Your task to perform on an android device: Add "razer blade" to the cart on costco.com, then select checkout. Image 0: 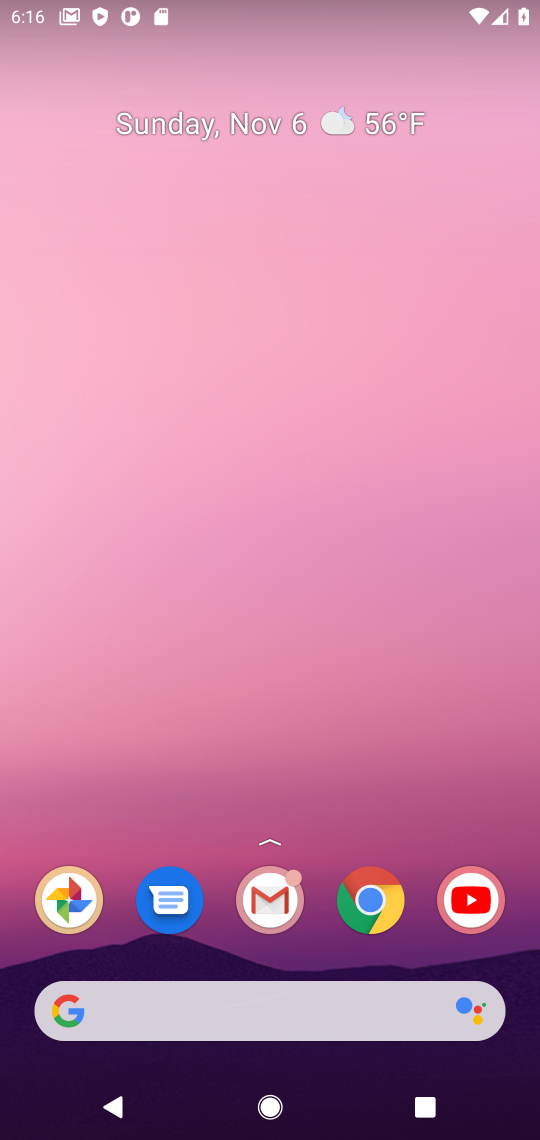
Step 0: drag from (317, 948) to (279, 52)
Your task to perform on an android device: Add "razer blade" to the cart on costco.com, then select checkout. Image 1: 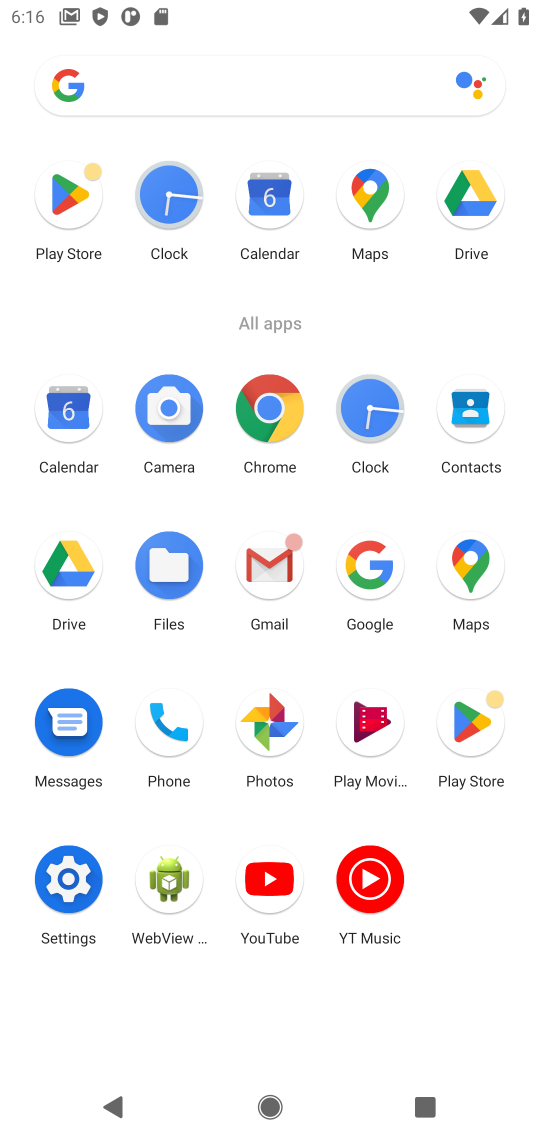
Step 1: click (269, 407)
Your task to perform on an android device: Add "razer blade" to the cart on costco.com, then select checkout. Image 2: 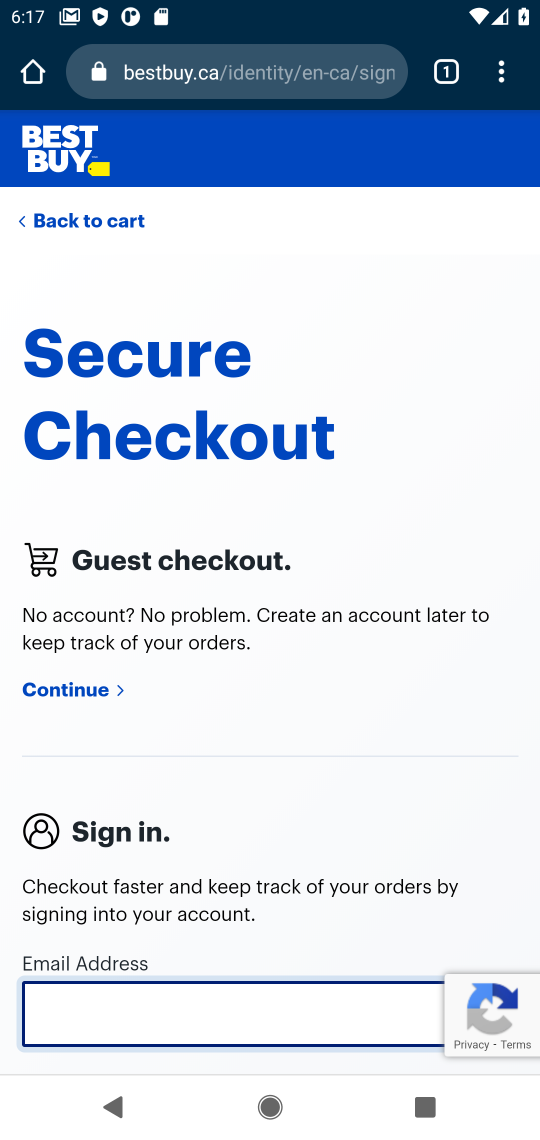
Step 2: click (325, 61)
Your task to perform on an android device: Add "razer blade" to the cart on costco.com, then select checkout. Image 3: 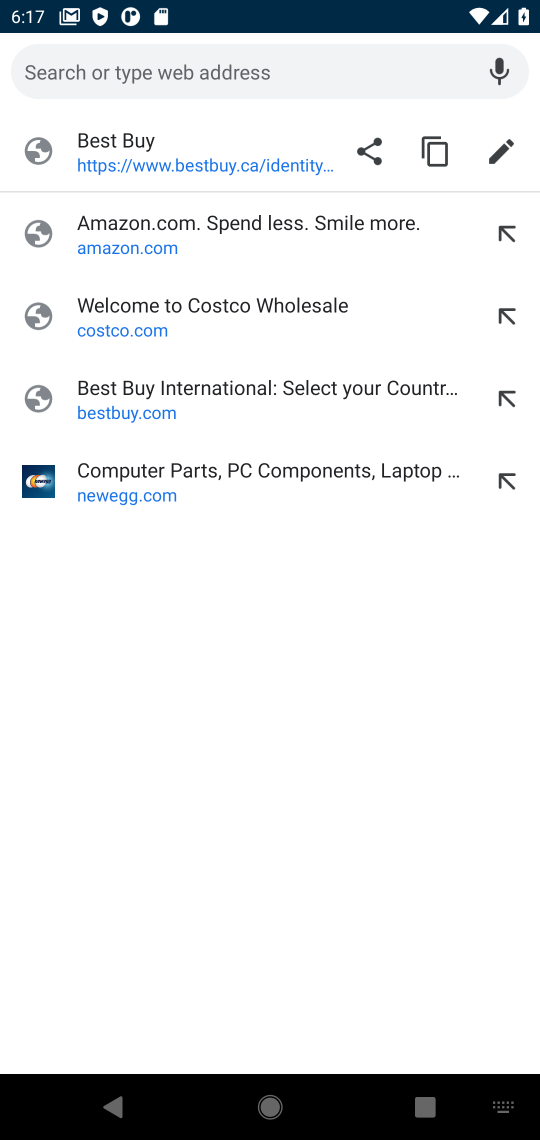
Step 3: type "costco.com"
Your task to perform on an android device: Add "razer blade" to the cart on costco.com, then select checkout. Image 4: 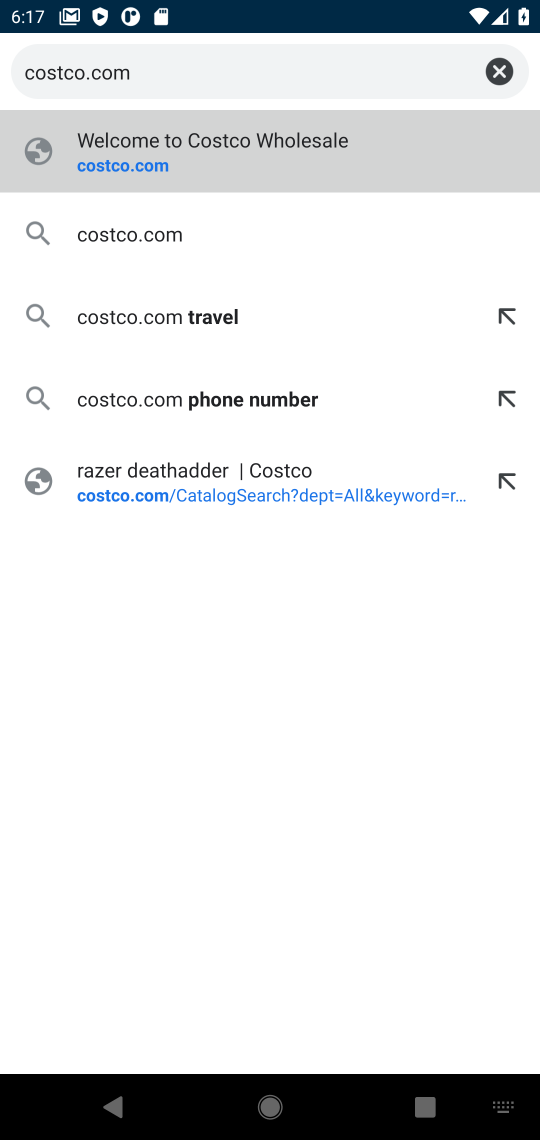
Step 4: press enter
Your task to perform on an android device: Add "razer blade" to the cart on costco.com, then select checkout. Image 5: 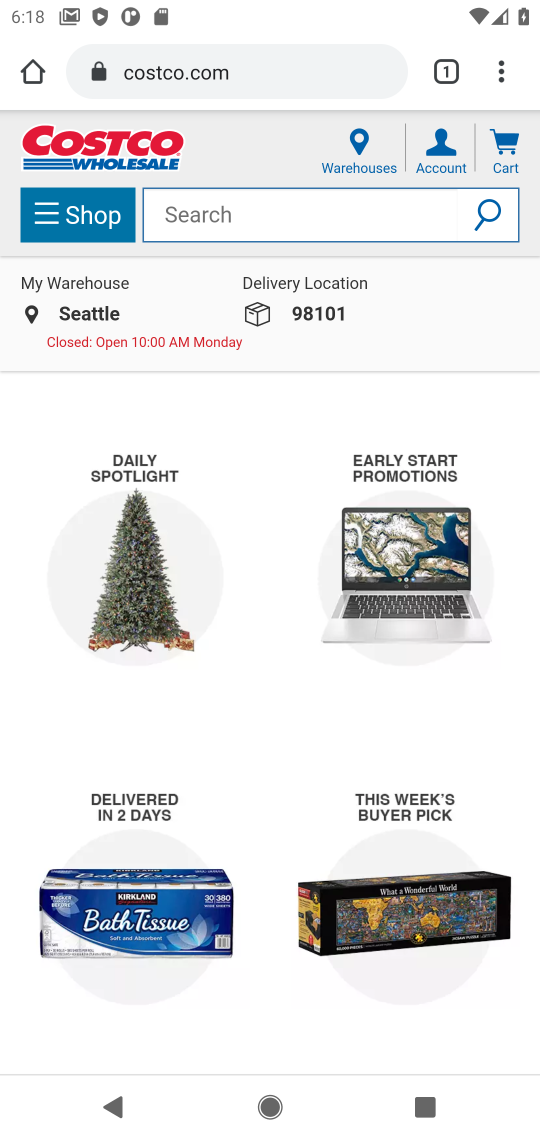
Step 5: click (321, 219)
Your task to perform on an android device: Add "razer blade" to the cart on costco.com, then select checkout. Image 6: 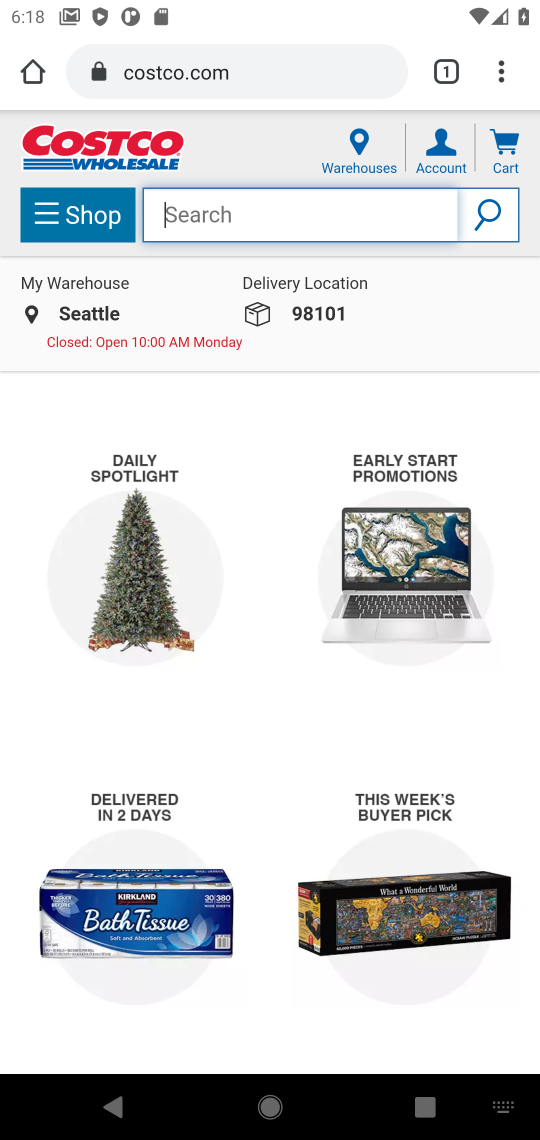
Step 6: type "razer blade"
Your task to perform on an android device: Add "razer blade" to the cart on costco.com, then select checkout. Image 7: 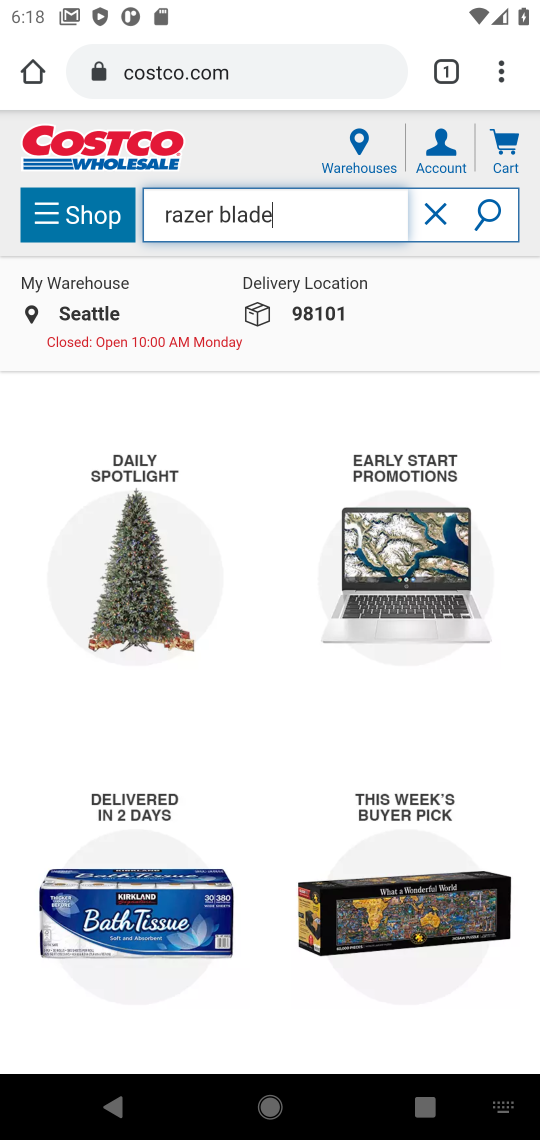
Step 7: press enter
Your task to perform on an android device: Add "razer blade" to the cart on costco.com, then select checkout. Image 8: 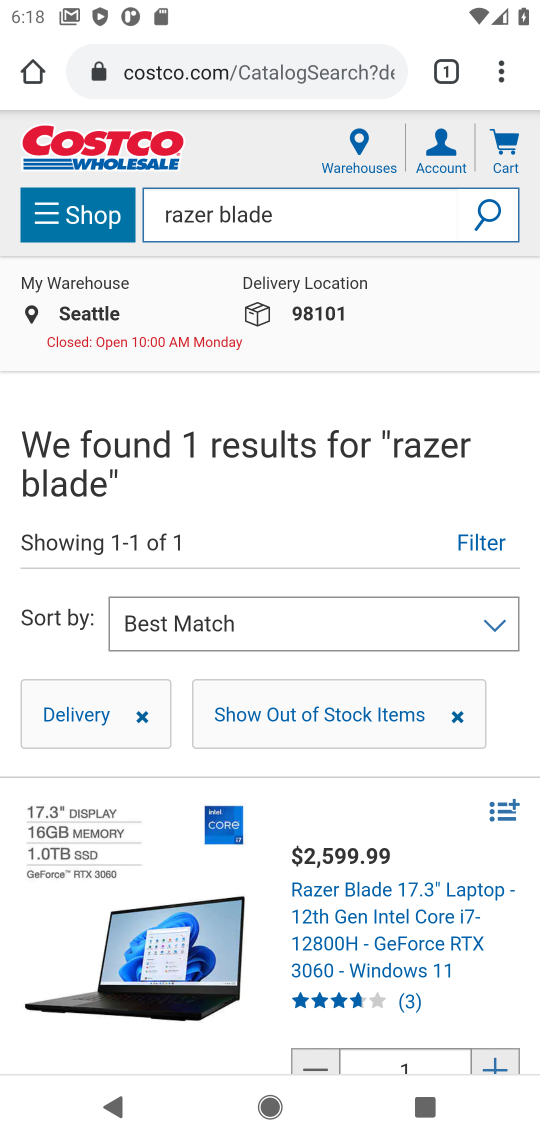
Step 8: drag from (342, 825) to (363, 346)
Your task to perform on an android device: Add "razer blade" to the cart on costco.com, then select checkout. Image 9: 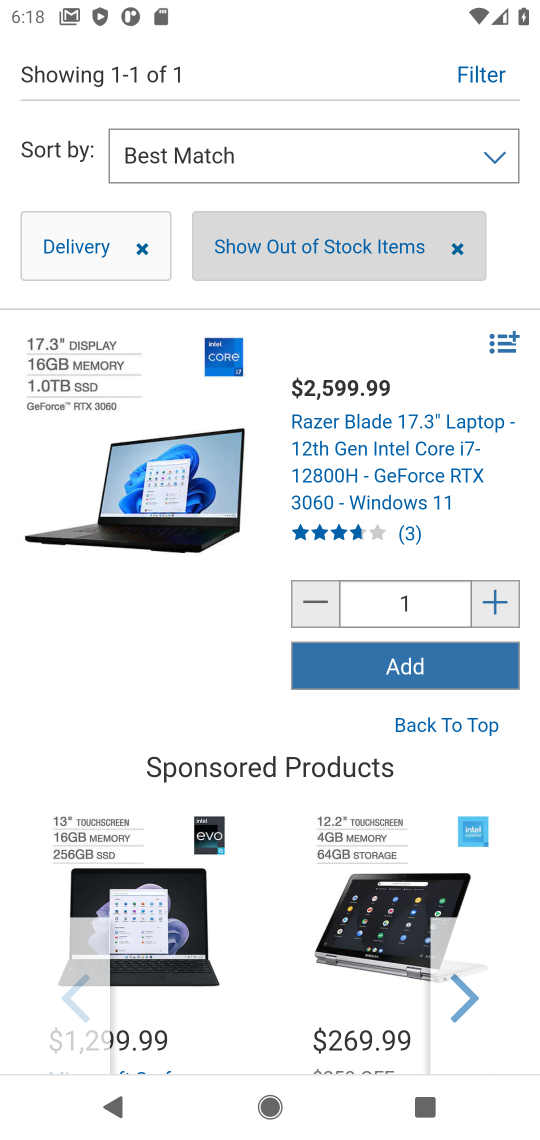
Step 9: click (430, 675)
Your task to perform on an android device: Add "razer blade" to the cart on costco.com, then select checkout. Image 10: 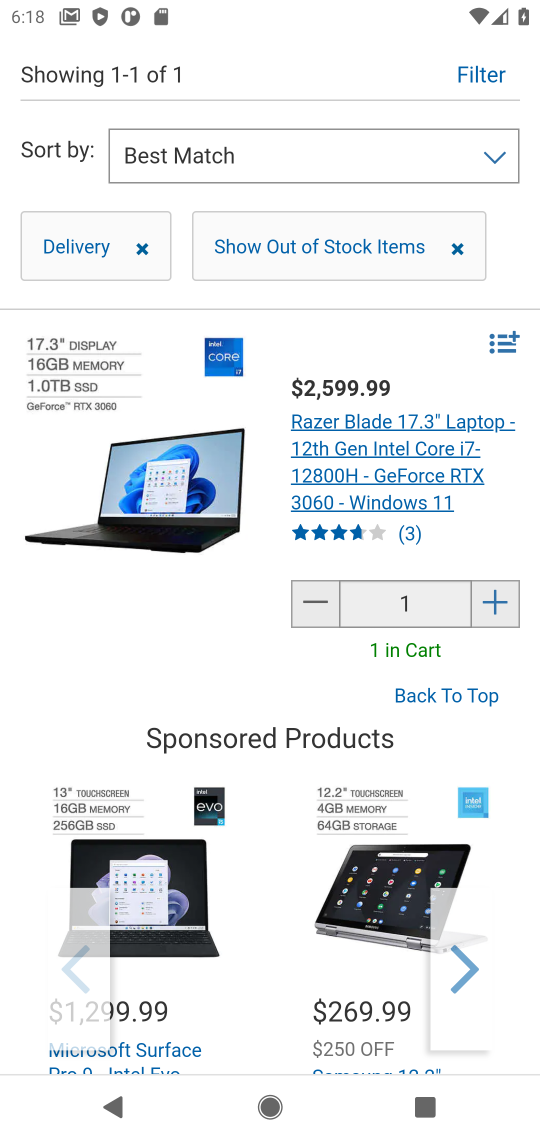
Step 10: drag from (414, 385) to (353, 1056)
Your task to perform on an android device: Add "razer blade" to the cart on costco.com, then select checkout. Image 11: 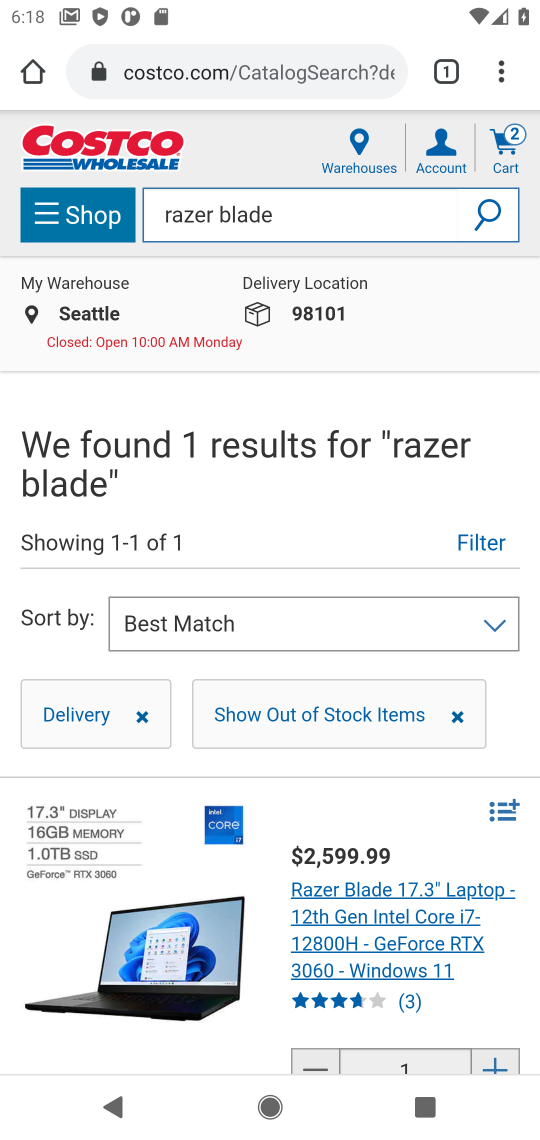
Step 11: click (504, 136)
Your task to perform on an android device: Add "razer blade" to the cart on costco.com, then select checkout. Image 12: 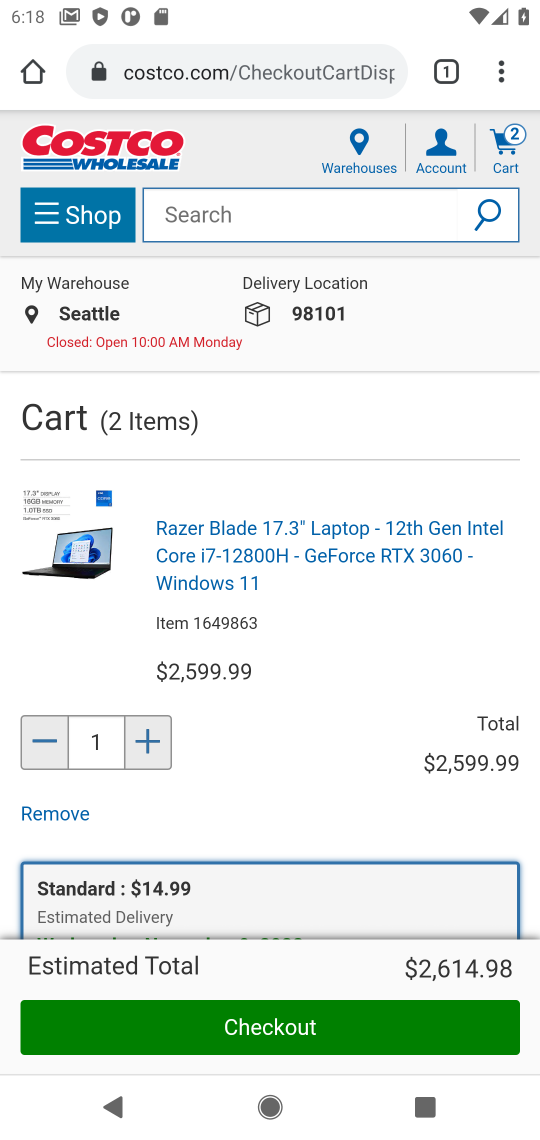
Step 12: drag from (313, 848) to (338, 518)
Your task to perform on an android device: Add "razer blade" to the cart on costco.com, then select checkout. Image 13: 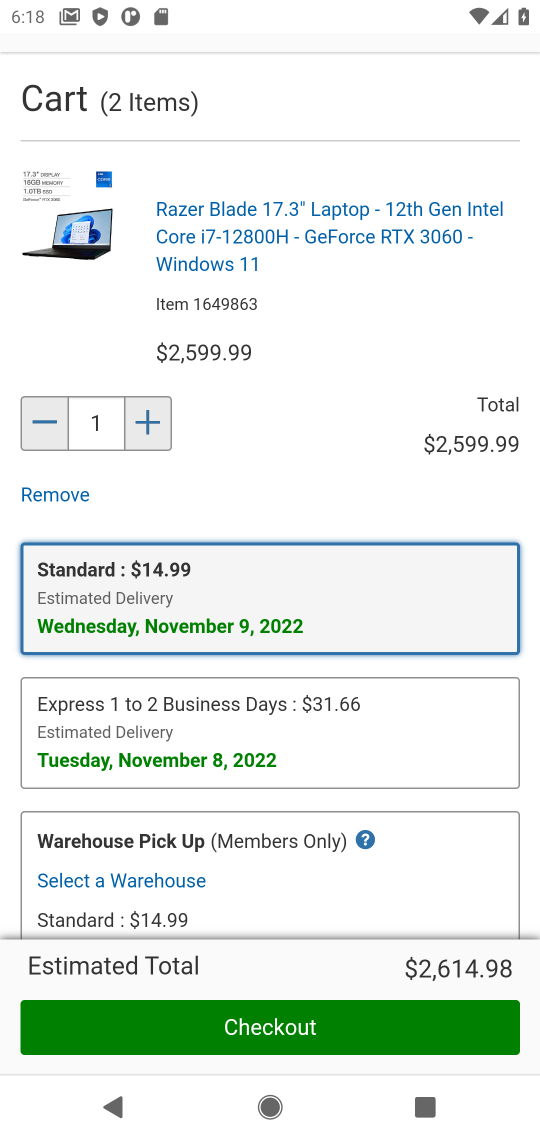
Step 13: click (315, 1039)
Your task to perform on an android device: Add "razer blade" to the cart on costco.com, then select checkout. Image 14: 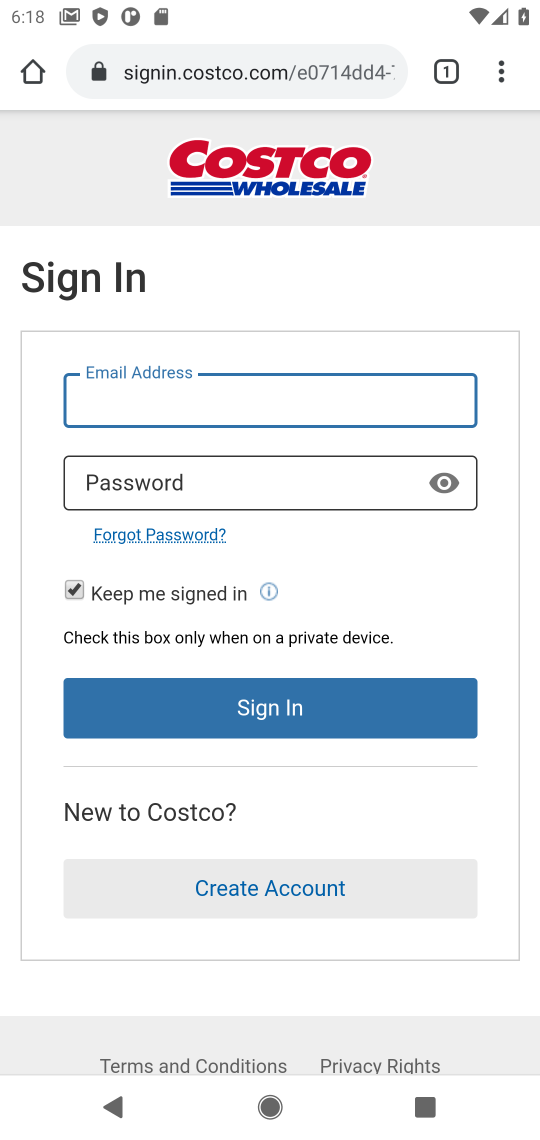
Step 14: task complete